Your task to perform on an android device: Open Chrome and go to settings Image 0: 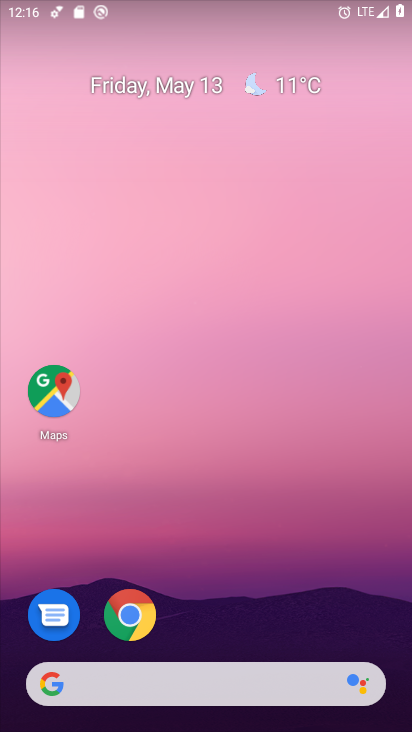
Step 0: click (137, 622)
Your task to perform on an android device: Open Chrome and go to settings Image 1: 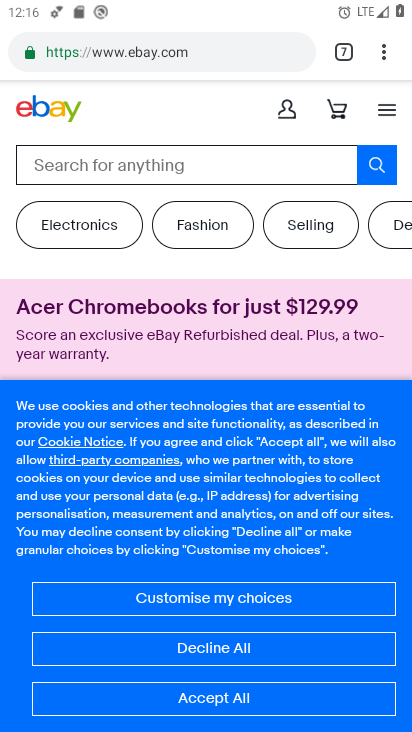
Step 1: click (380, 52)
Your task to perform on an android device: Open Chrome and go to settings Image 2: 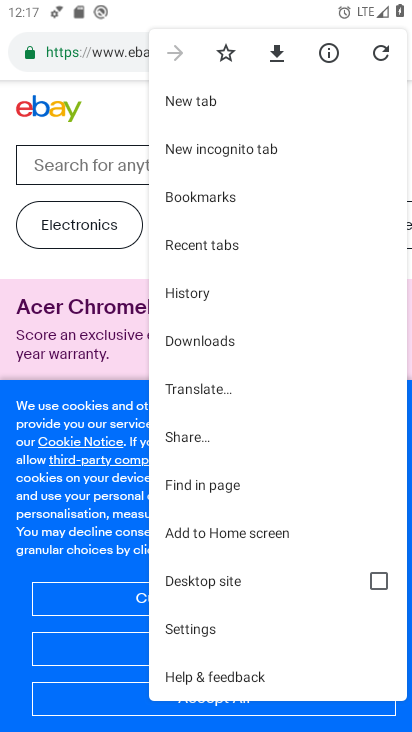
Step 2: click (246, 623)
Your task to perform on an android device: Open Chrome and go to settings Image 3: 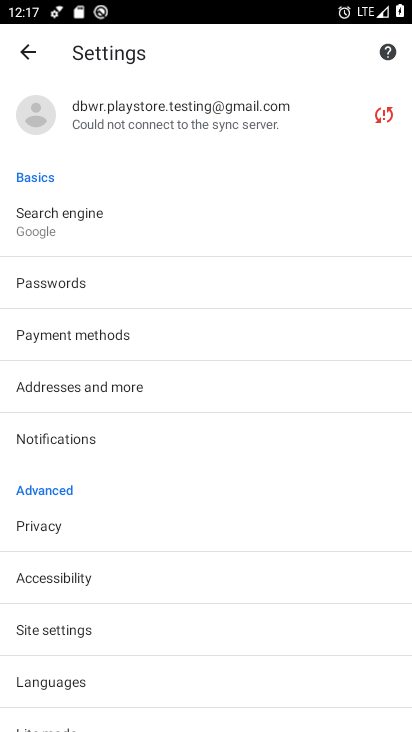
Step 3: task complete